Your task to perform on an android device: Search for "lenovo thinkpad" on ebay.com, select the first entry, add it to the cart, then select checkout. Image 0: 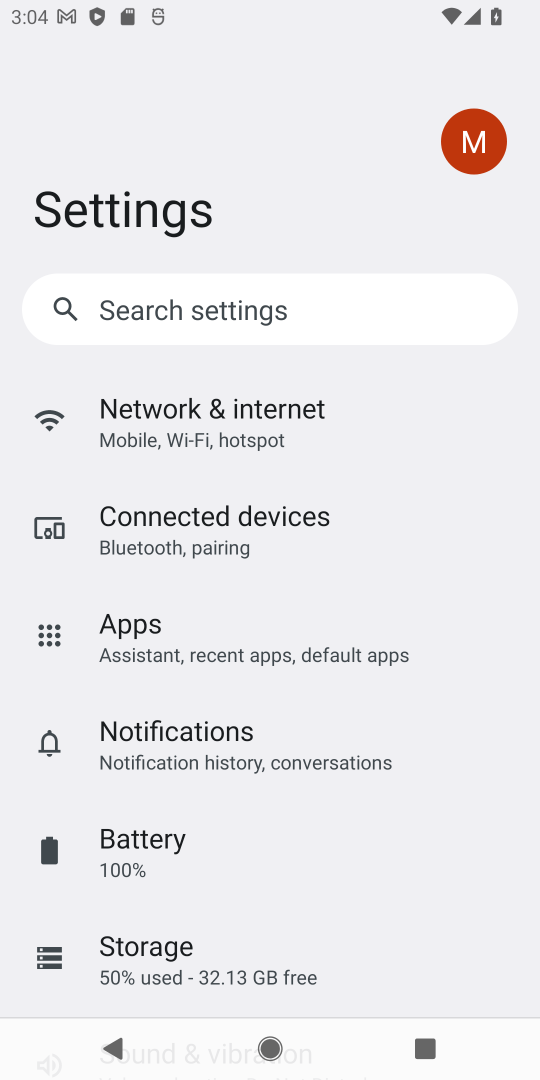
Step 0: press home button
Your task to perform on an android device: Search for "lenovo thinkpad" on ebay.com, select the first entry, add it to the cart, then select checkout. Image 1: 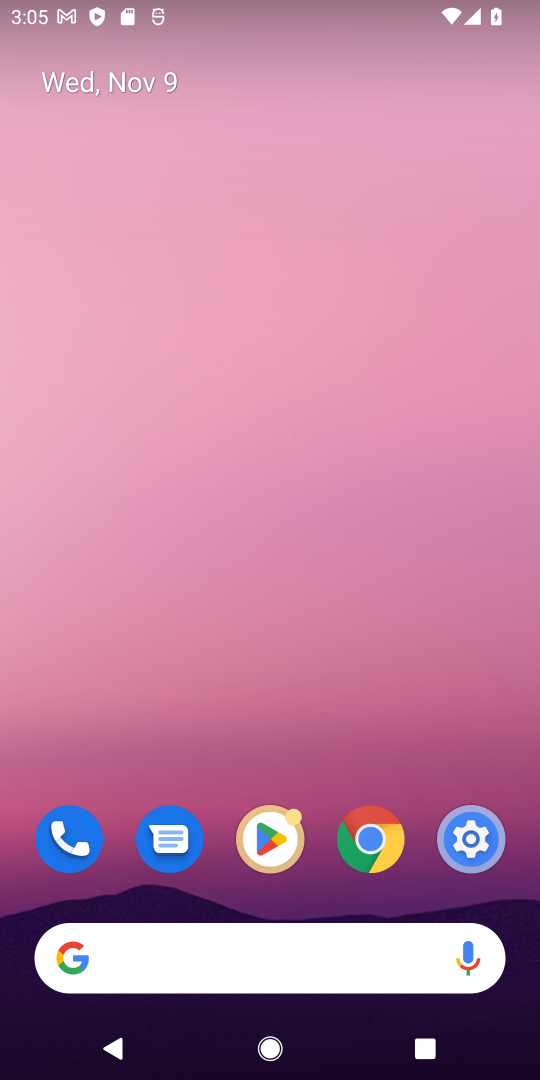
Step 1: click (342, 962)
Your task to perform on an android device: Search for "lenovo thinkpad" on ebay.com, select the first entry, add it to the cart, then select checkout. Image 2: 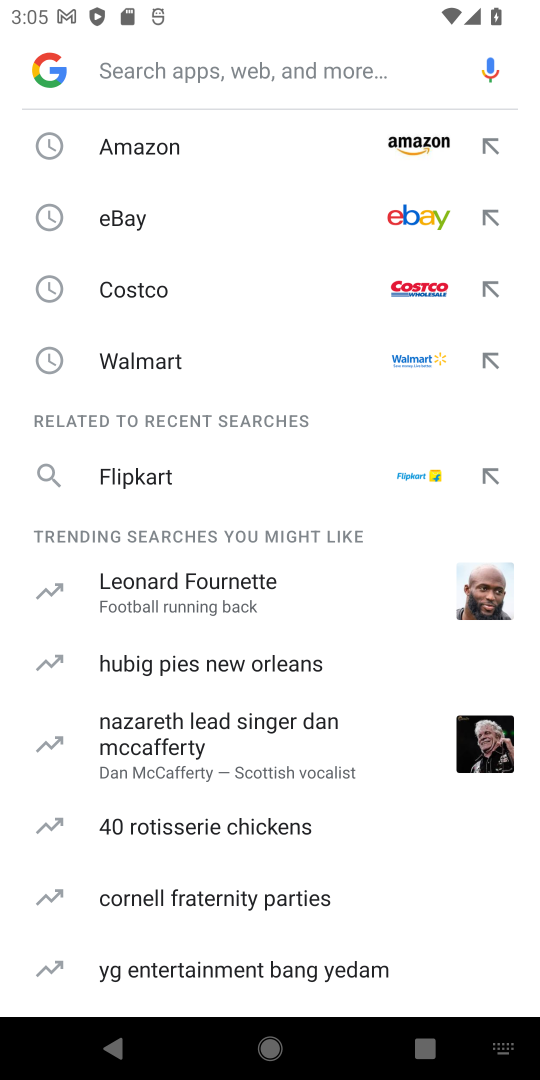
Step 2: click (160, 211)
Your task to perform on an android device: Search for "lenovo thinkpad" on ebay.com, select the first entry, add it to the cart, then select checkout. Image 3: 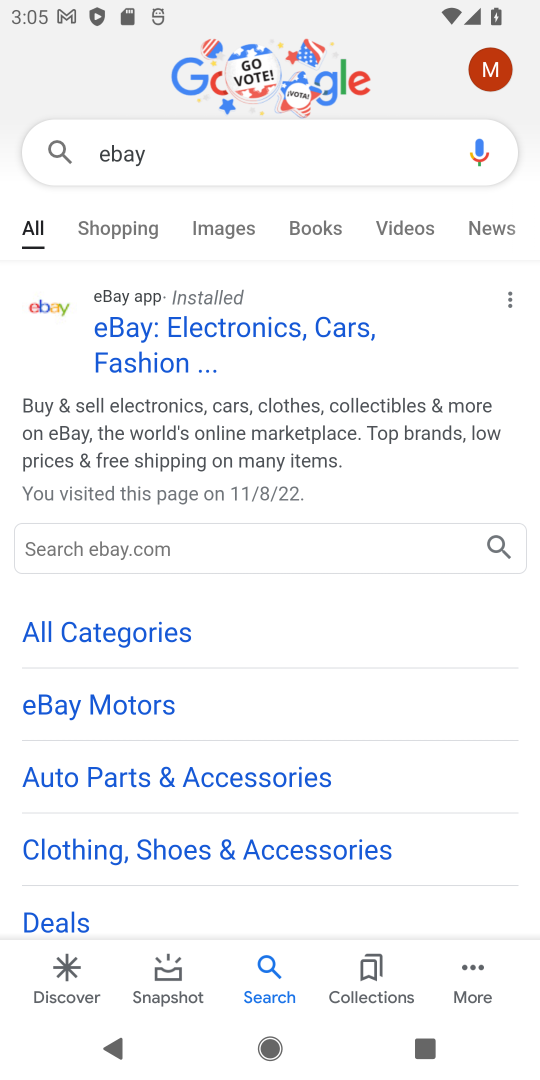
Step 3: click (149, 344)
Your task to perform on an android device: Search for "lenovo thinkpad" on ebay.com, select the first entry, add it to the cart, then select checkout. Image 4: 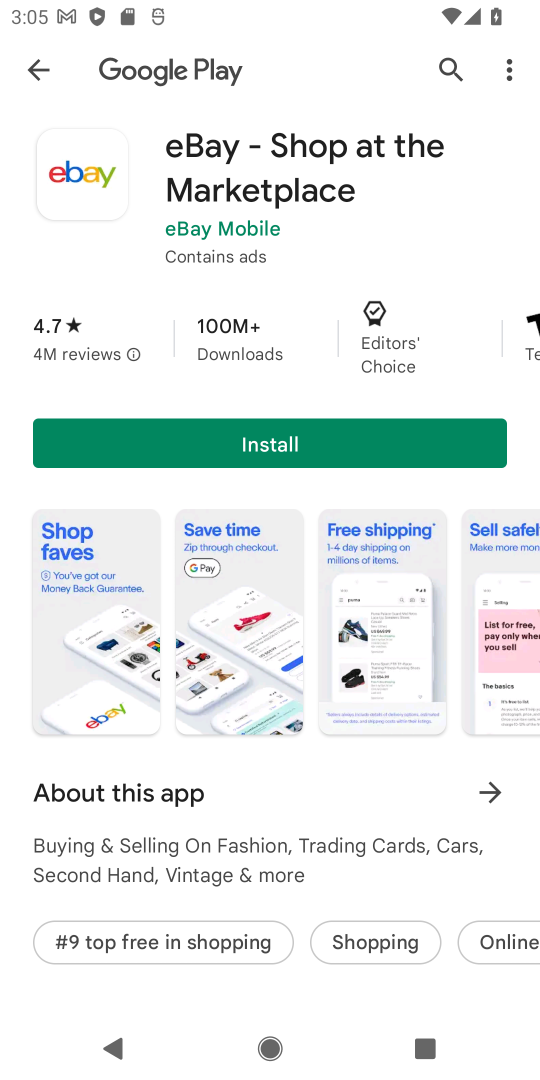
Step 4: task complete